Your task to perform on an android device: toggle airplane mode Image 0: 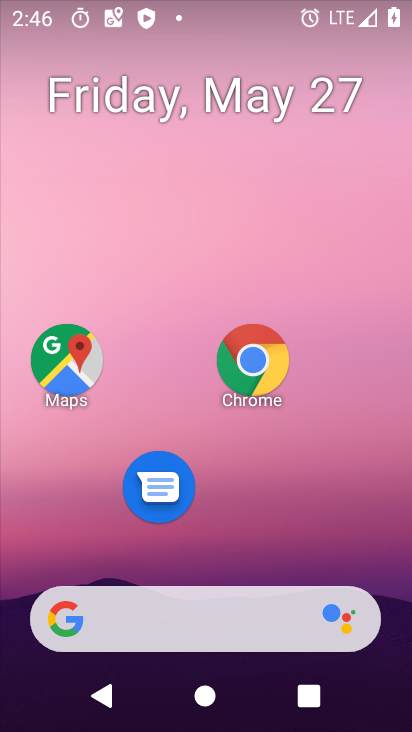
Step 0: drag from (246, 536) to (295, 32)
Your task to perform on an android device: toggle airplane mode Image 1: 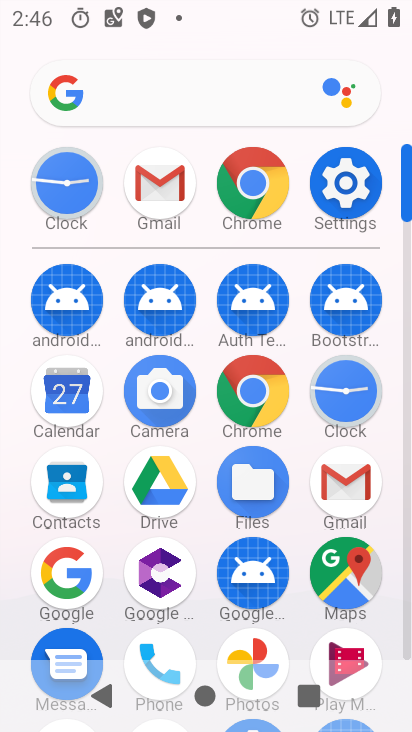
Step 1: click (352, 178)
Your task to perform on an android device: toggle airplane mode Image 2: 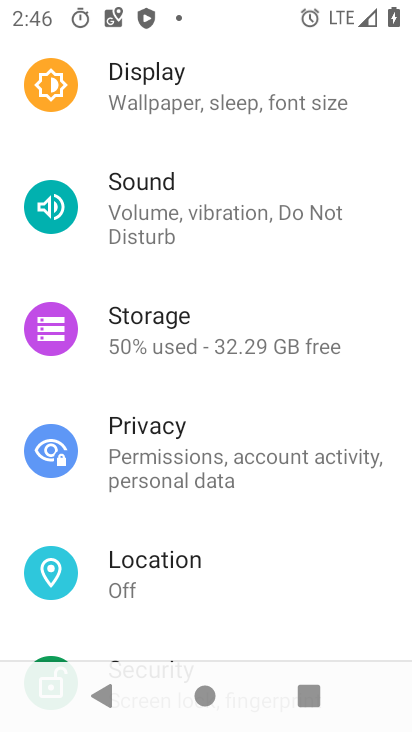
Step 2: drag from (195, 97) to (239, 633)
Your task to perform on an android device: toggle airplane mode Image 3: 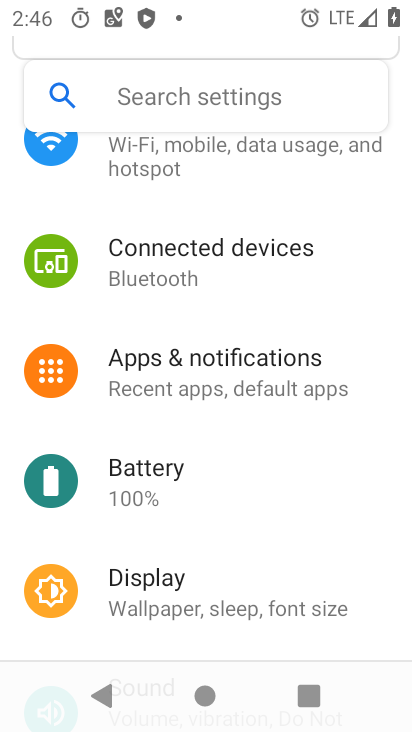
Step 3: click (176, 158)
Your task to perform on an android device: toggle airplane mode Image 4: 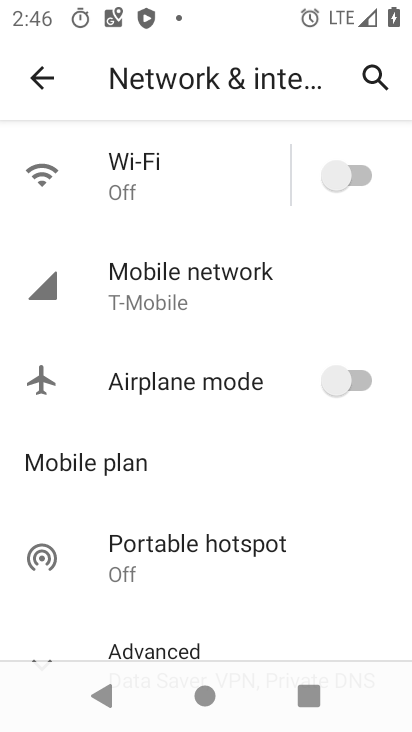
Step 4: click (339, 377)
Your task to perform on an android device: toggle airplane mode Image 5: 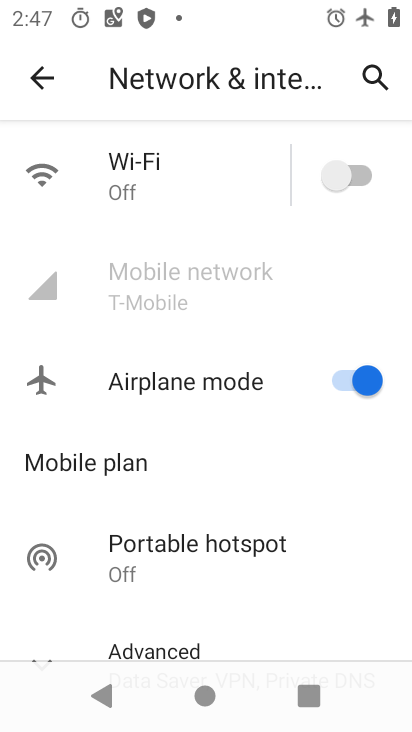
Step 5: task complete